Your task to perform on an android device: turn off sleep mode Image 0: 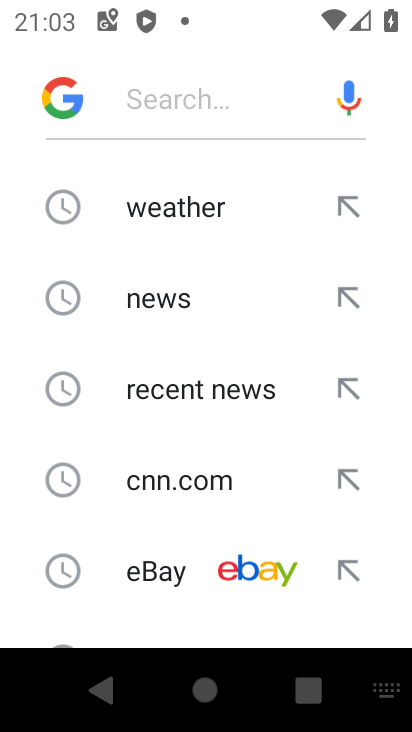
Step 0: task impossible